Your task to perform on an android device: Search for Mexican restaurants on Maps Image 0: 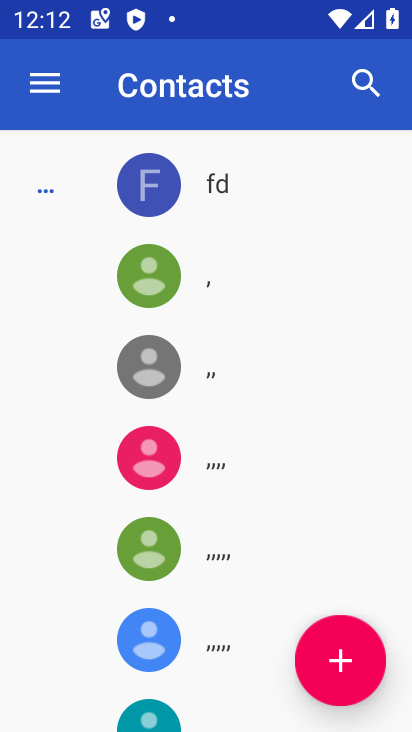
Step 0: press home button
Your task to perform on an android device: Search for Mexican restaurants on Maps Image 1: 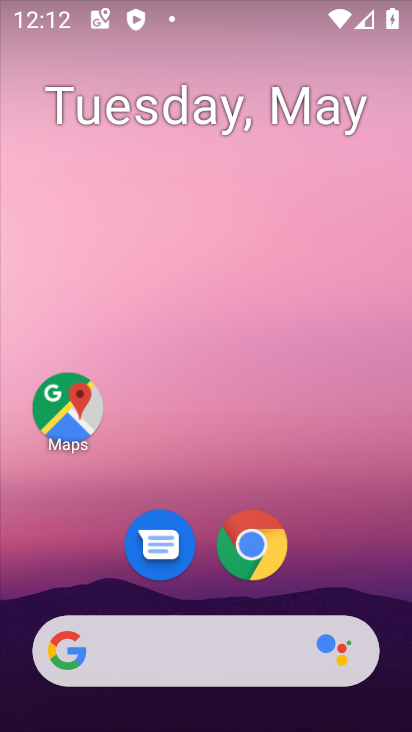
Step 1: click (48, 410)
Your task to perform on an android device: Search for Mexican restaurants on Maps Image 2: 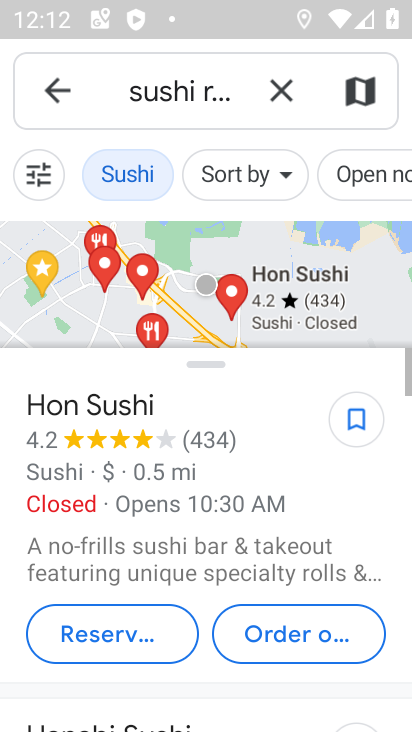
Step 2: click (284, 98)
Your task to perform on an android device: Search for Mexican restaurants on Maps Image 3: 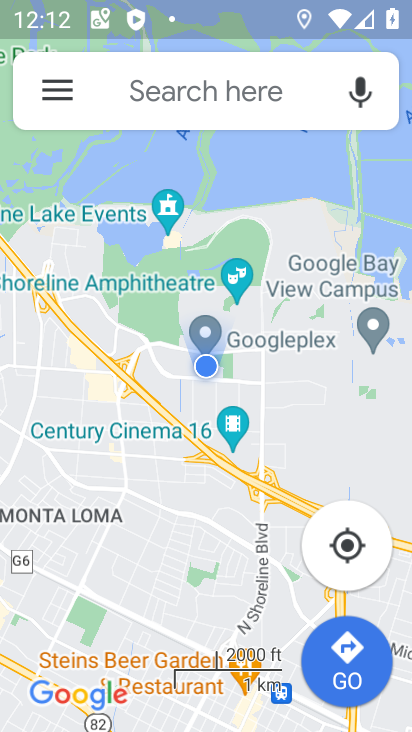
Step 3: click (180, 104)
Your task to perform on an android device: Search for Mexican restaurants on Maps Image 4: 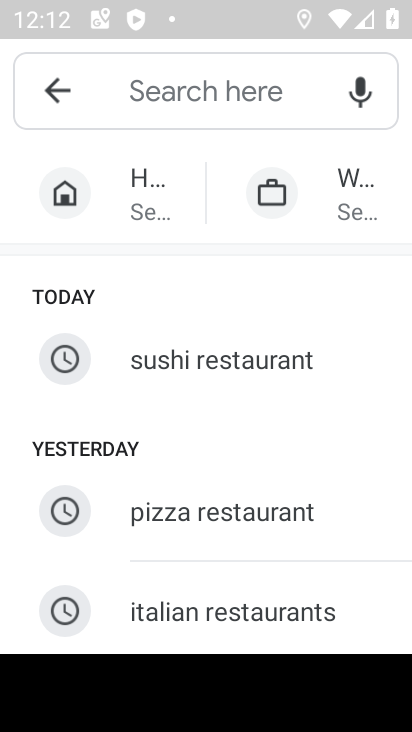
Step 4: drag from (163, 596) to (270, 161)
Your task to perform on an android device: Search for Mexican restaurants on Maps Image 5: 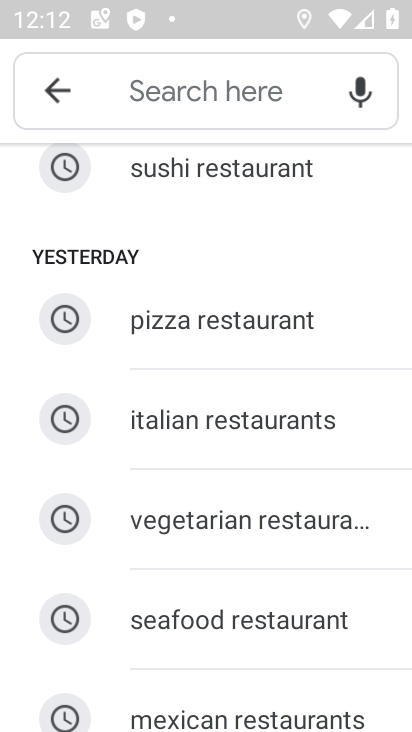
Step 5: click (183, 720)
Your task to perform on an android device: Search for Mexican restaurants on Maps Image 6: 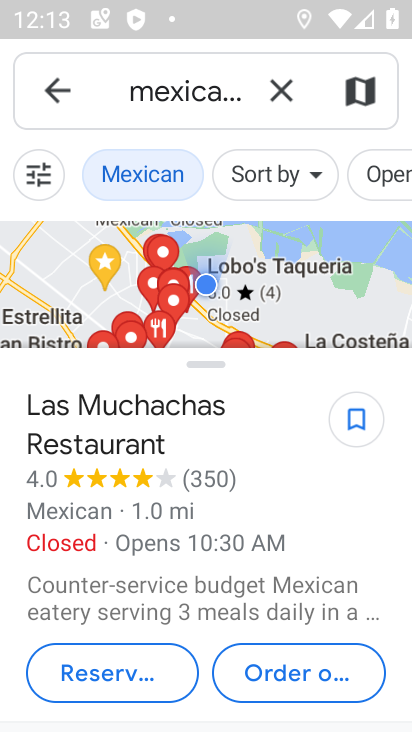
Step 6: task complete